Your task to perform on an android device: Go to calendar. Show me events next week Image 0: 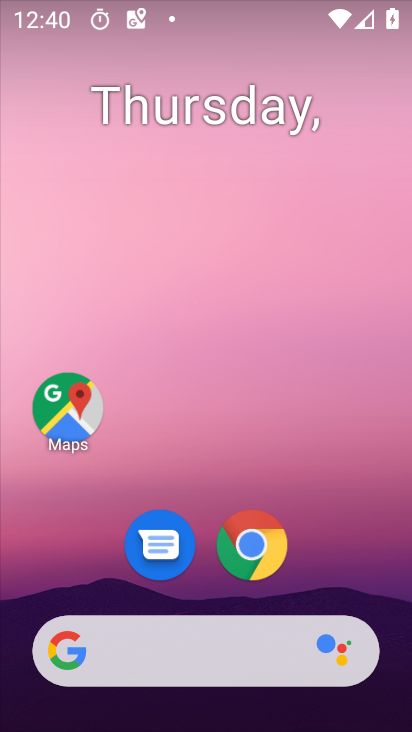
Step 0: drag from (231, 476) to (229, 183)
Your task to perform on an android device: Go to calendar. Show me events next week Image 1: 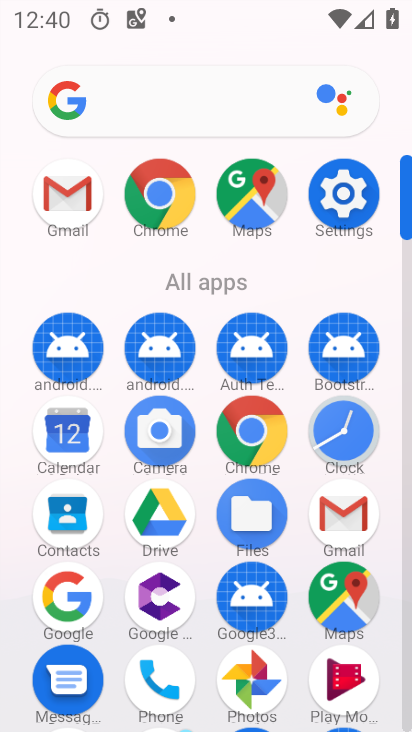
Step 1: click (57, 451)
Your task to perform on an android device: Go to calendar. Show me events next week Image 2: 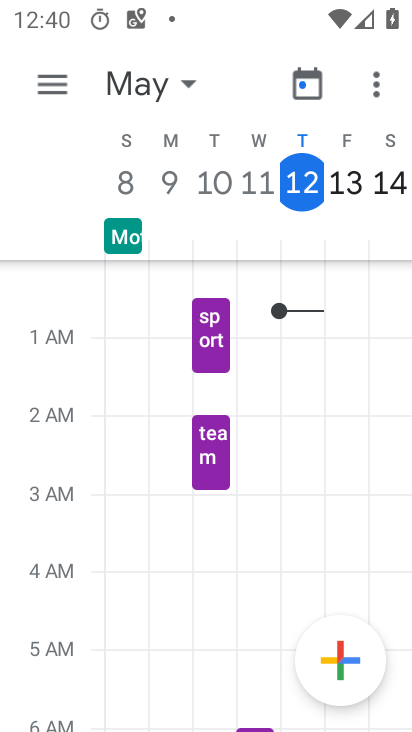
Step 2: click (178, 78)
Your task to perform on an android device: Go to calendar. Show me events next week Image 3: 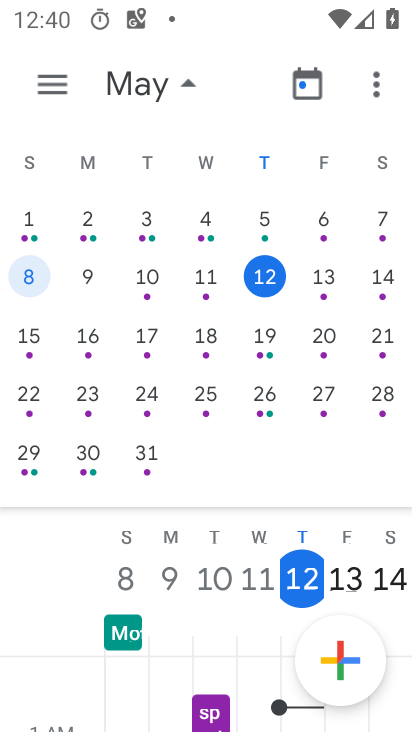
Step 3: click (27, 349)
Your task to perform on an android device: Go to calendar. Show me events next week Image 4: 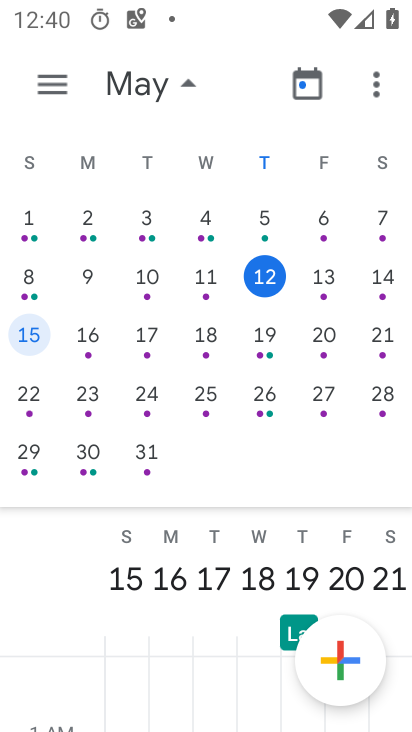
Step 4: click (175, 89)
Your task to perform on an android device: Go to calendar. Show me events next week Image 5: 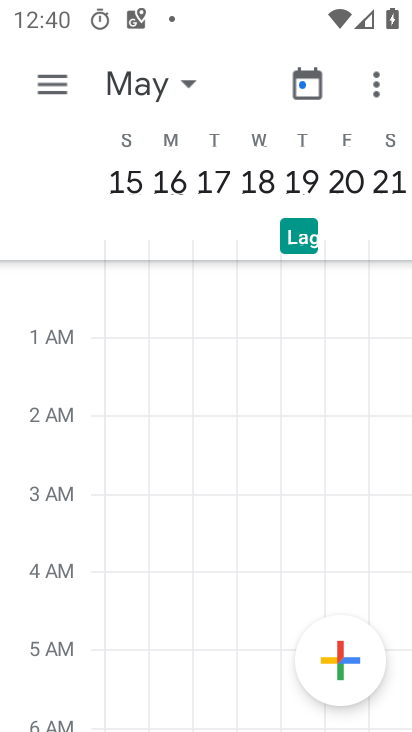
Step 5: task complete